Your task to perform on an android device: Find coffee shops on Maps Image 0: 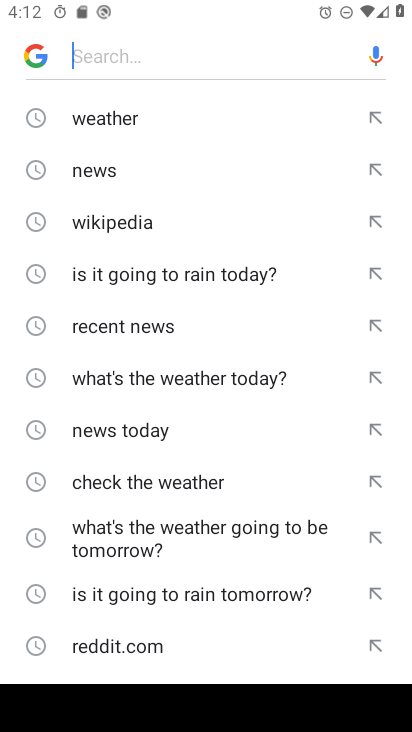
Step 0: press home button
Your task to perform on an android device: Find coffee shops on Maps Image 1: 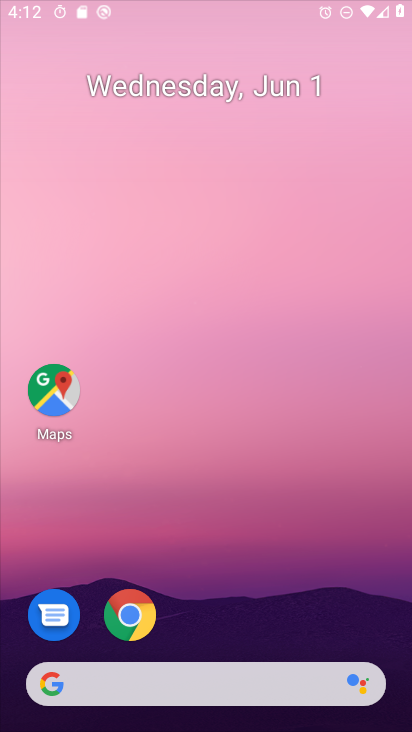
Step 1: drag from (317, 672) to (291, 32)
Your task to perform on an android device: Find coffee shops on Maps Image 2: 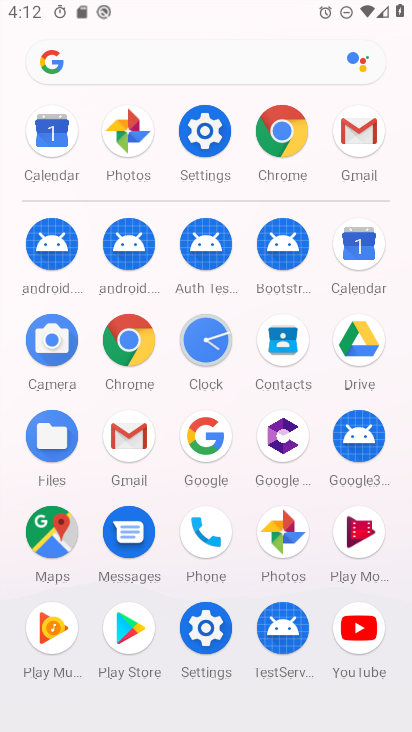
Step 2: click (54, 537)
Your task to perform on an android device: Find coffee shops on Maps Image 3: 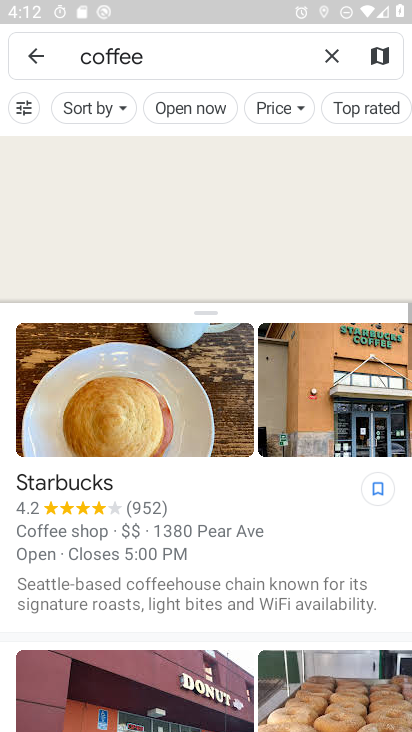
Step 3: click (235, 50)
Your task to perform on an android device: Find coffee shops on Maps Image 4: 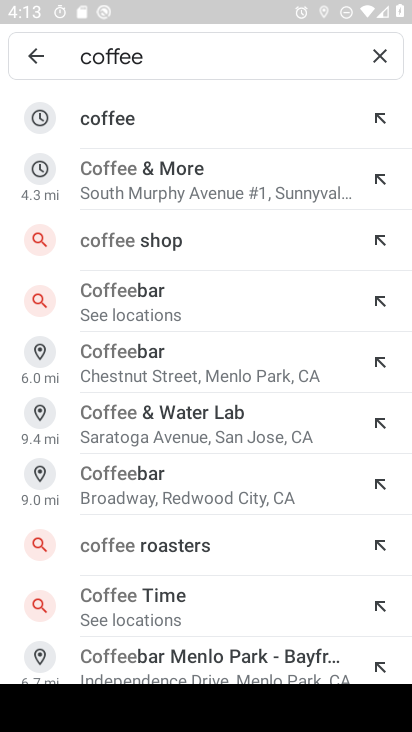
Step 4: click (195, 241)
Your task to perform on an android device: Find coffee shops on Maps Image 5: 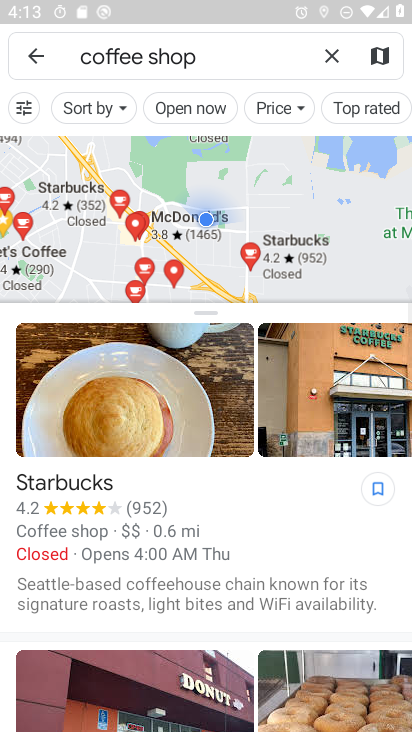
Step 5: task complete